Your task to perform on an android device: turn smart compose on in the gmail app Image 0: 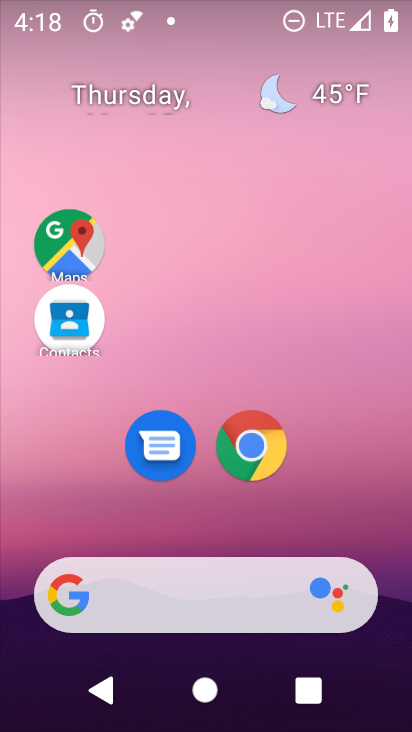
Step 0: drag from (311, 502) to (264, 79)
Your task to perform on an android device: turn smart compose on in the gmail app Image 1: 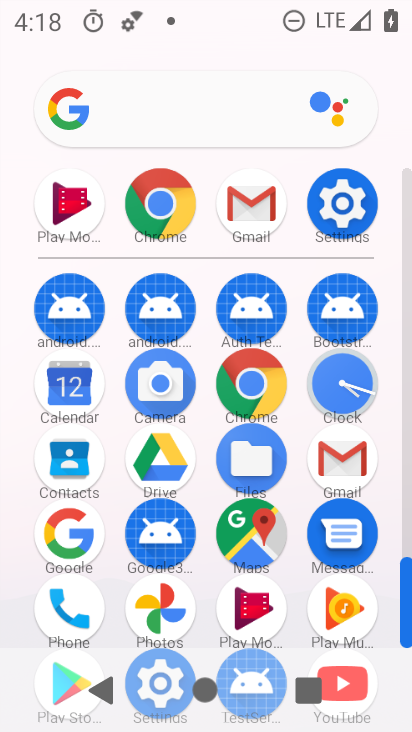
Step 1: click (248, 201)
Your task to perform on an android device: turn smart compose on in the gmail app Image 2: 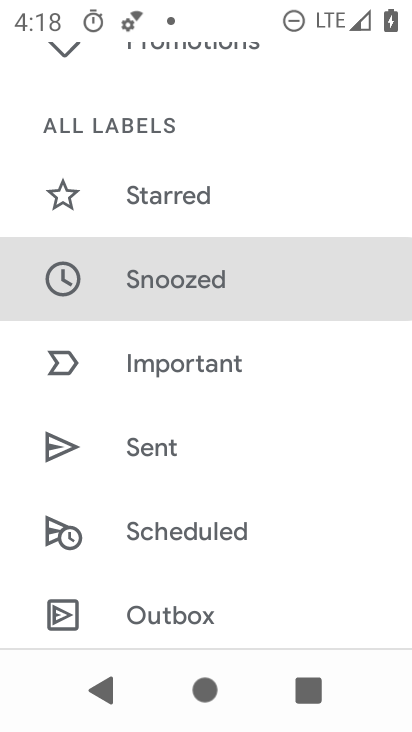
Step 2: drag from (218, 578) to (282, 276)
Your task to perform on an android device: turn smart compose on in the gmail app Image 3: 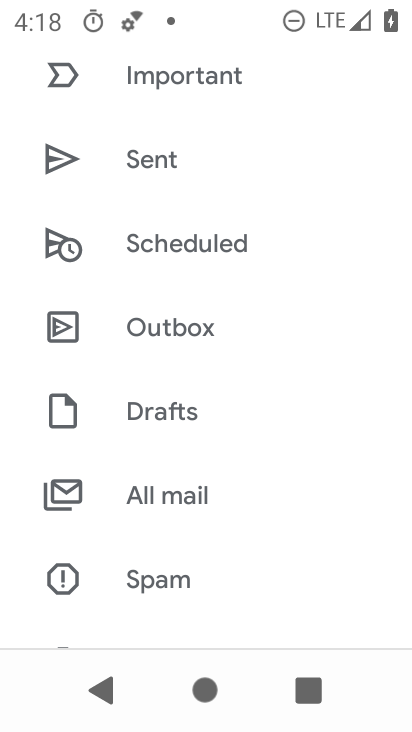
Step 3: drag from (199, 529) to (291, 195)
Your task to perform on an android device: turn smart compose on in the gmail app Image 4: 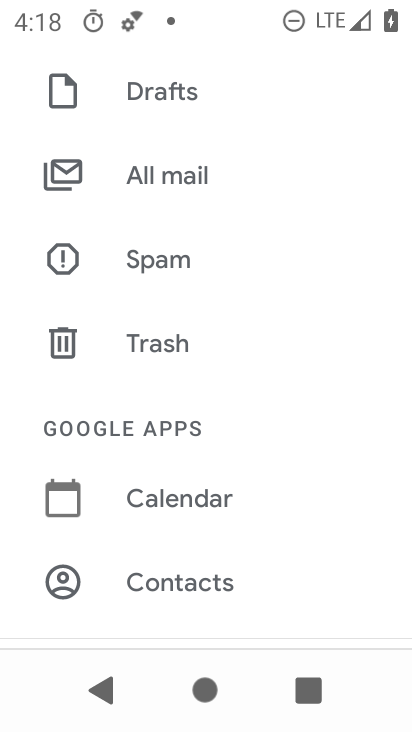
Step 4: drag from (140, 545) to (258, 291)
Your task to perform on an android device: turn smart compose on in the gmail app Image 5: 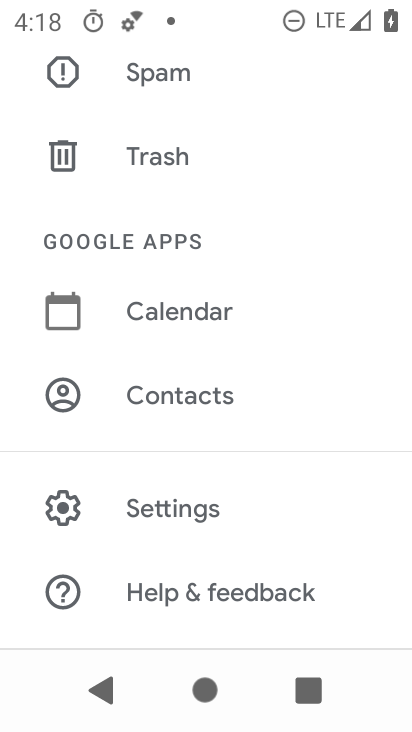
Step 5: click (150, 507)
Your task to perform on an android device: turn smart compose on in the gmail app Image 6: 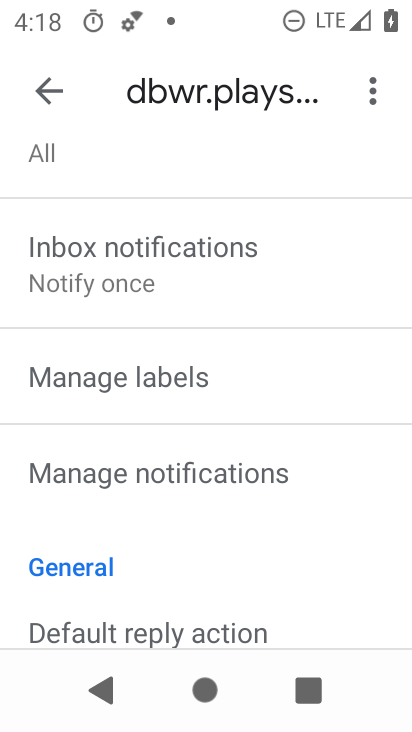
Step 6: task complete